Your task to perform on an android device: turn on wifi Image 0: 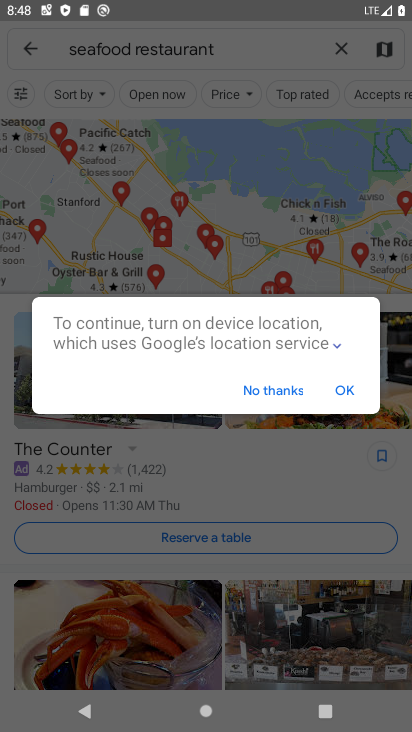
Step 0: press home button
Your task to perform on an android device: turn on wifi Image 1: 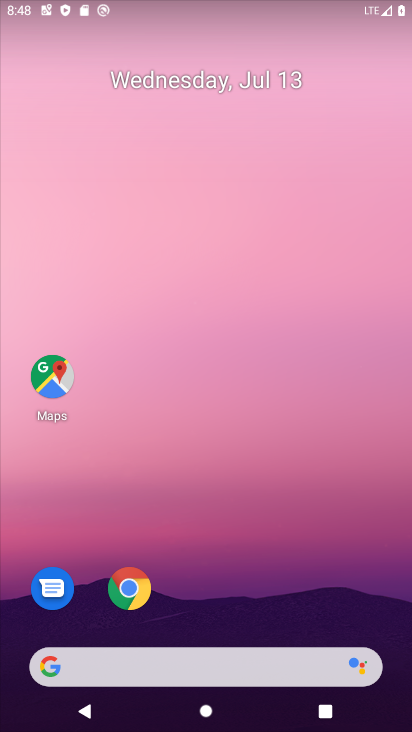
Step 1: drag from (232, 644) to (237, 229)
Your task to perform on an android device: turn on wifi Image 2: 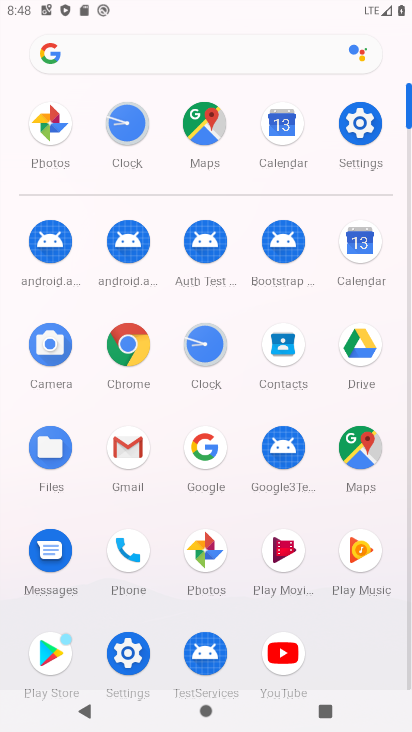
Step 2: click (372, 123)
Your task to perform on an android device: turn on wifi Image 3: 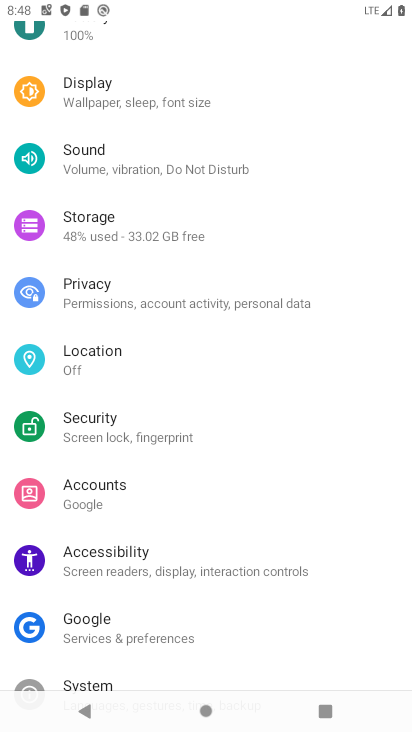
Step 3: drag from (133, 123) to (128, 608)
Your task to perform on an android device: turn on wifi Image 4: 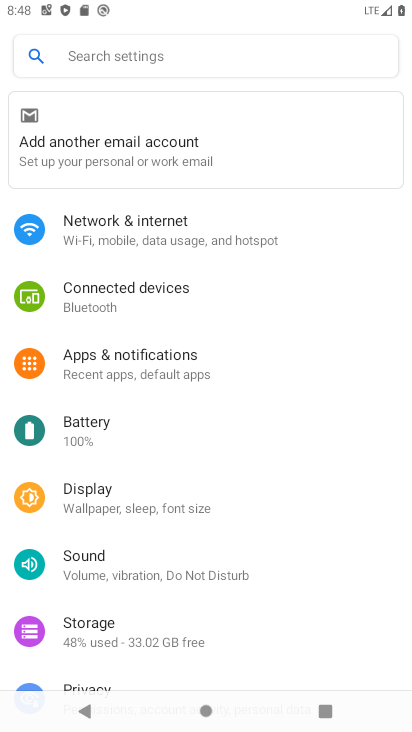
Step 4: click (107, 239)
Your task to perform on an android device: turn on wifi Image 5: 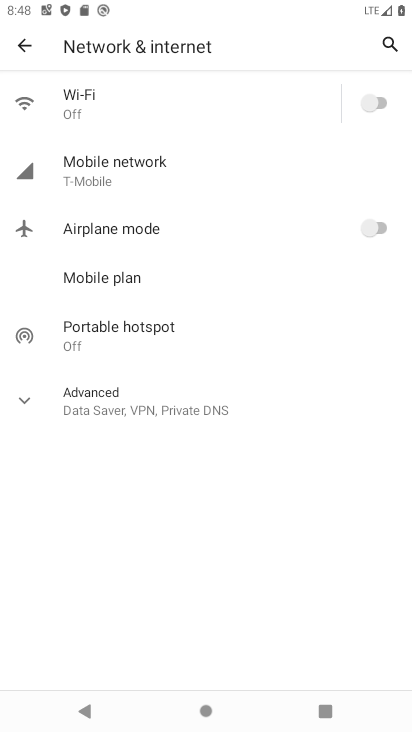
Step 5: click (375, 107)
Your task to perform on an android device: turn on wifi Image 6: 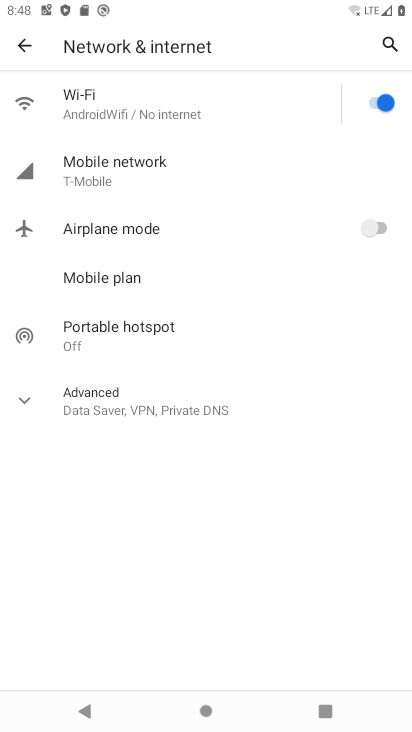
Step 6: task complete